Your task to perform on an android device: manage bookmarks in the chrome app Image 0: 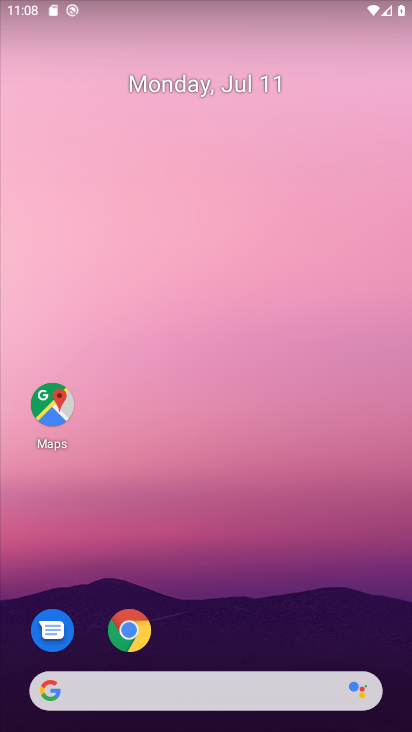
Step 0: drag from (215, 654) to (194, 42)
Your task to perform on an android device: manage bookmarks in the chrome app Image 1: 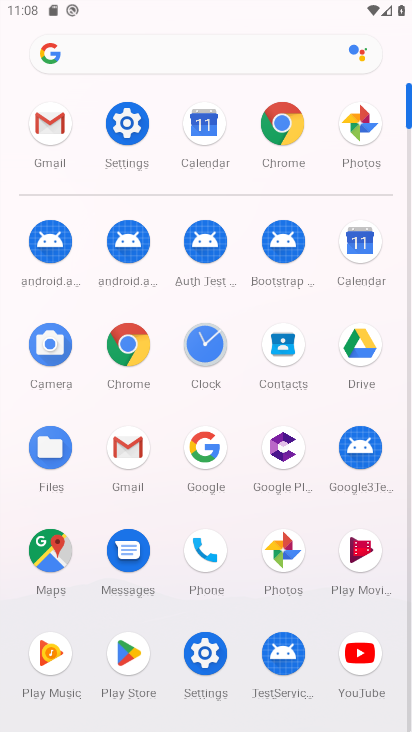
Step 1: click (136, 332)
Your task to perform on an android device: manage bookmarks in the chrome app Image 2: 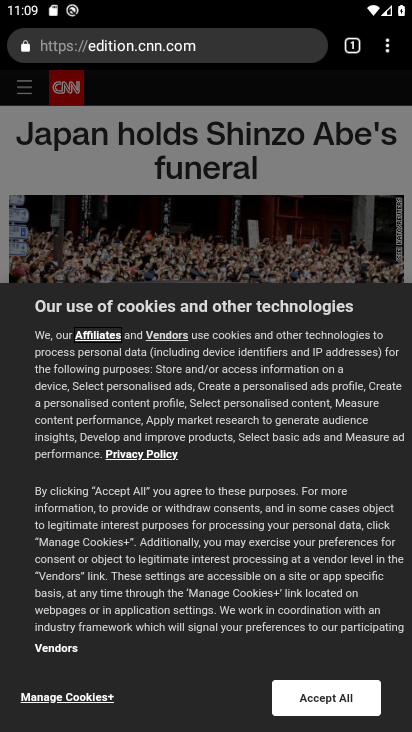
Step 2: click (389, 48)
Your task to perform on an android device: manage bookmarks in the chrome app Image 3: 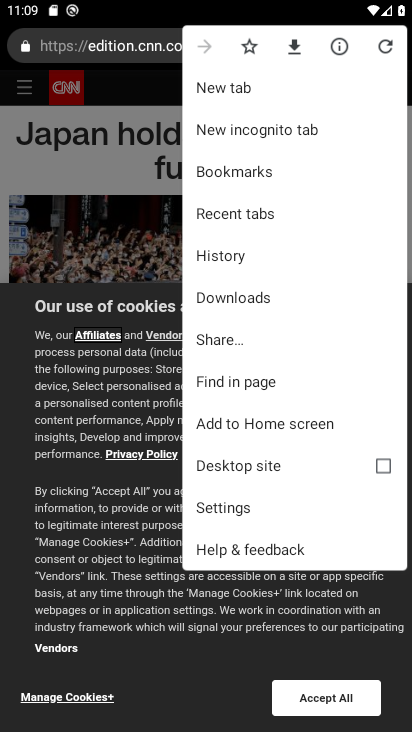
Step 3: click (234, 171)
Your task to perform on an android device: manage bookmarks in the chrome app Image 4: 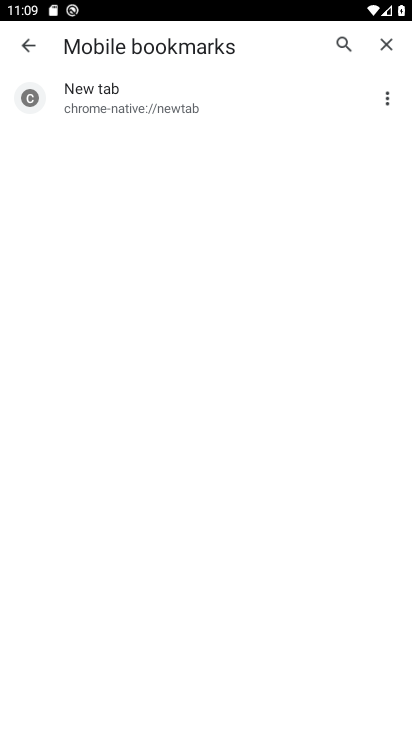
Step 4: click (384, 93)
Your task to perform on an android device: manage bookmarks in the chrome app Image 5: 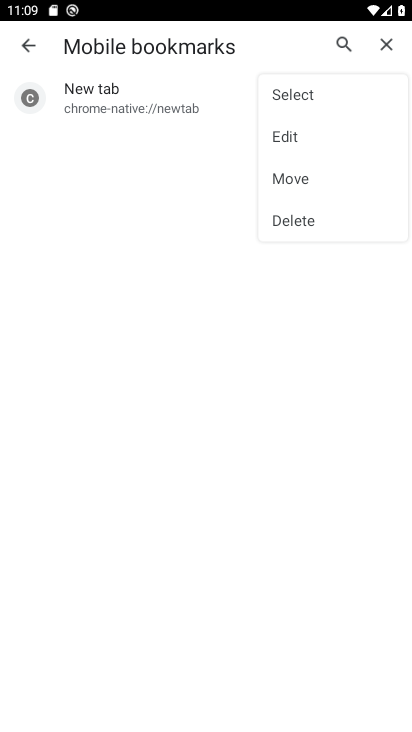
Step 5: click (294, 130)
Your task to perform on an android device: manage bookmarks in the chrome app Image 6: 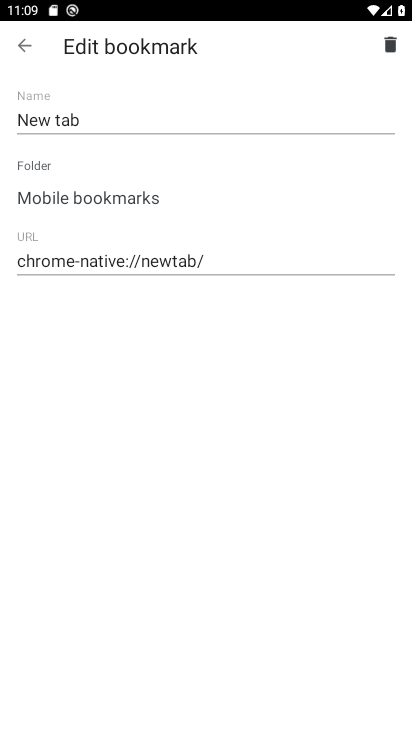
Step 6: click (63, 119)
Your task to perform on an android device: manage bookmarks in the chrome app Image 7: 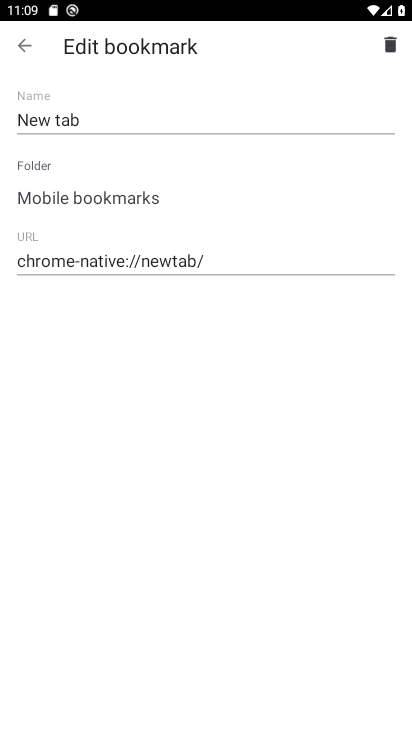
Step 7: click (63, 119)
Your task to perform on an android device: manage bookmarks in the chrome app Image 8: 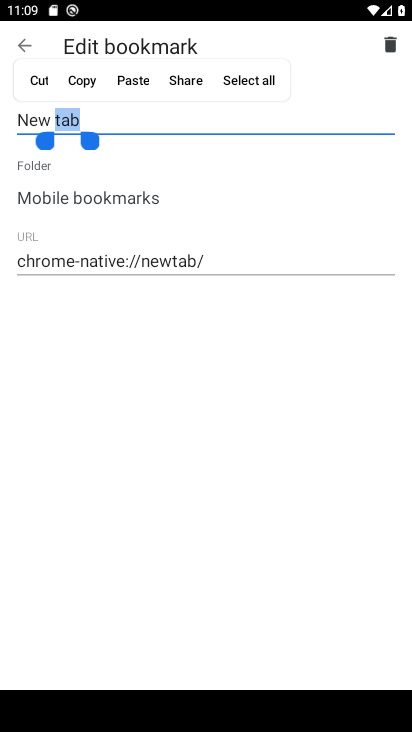
Step 8: type "page"
Your task to perform on an android device: manage bookmarks in the chrome app Image 9: 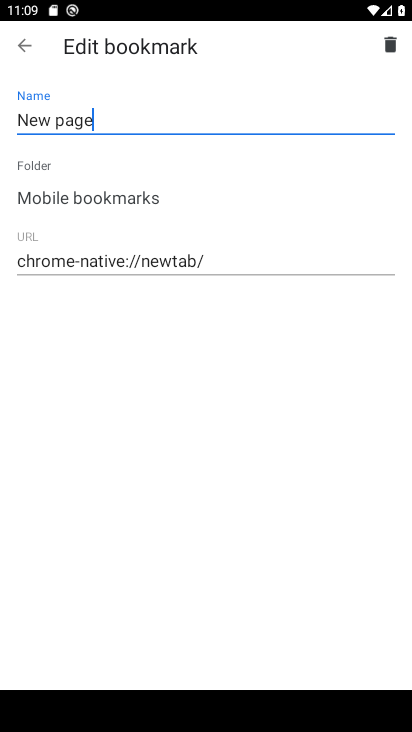
Step 9: click (20, 47)
Your task to perform on an android device: manage bookmarks in the chrome app Image 10: 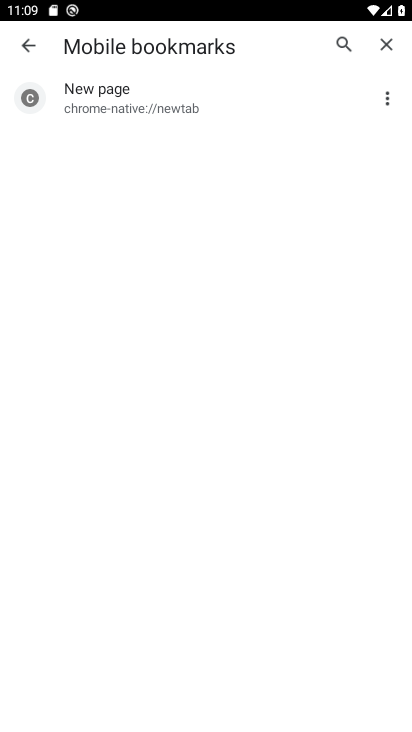
Step 10: task complete